Your task to perform on an android device: empty trash in google photos Image 0: 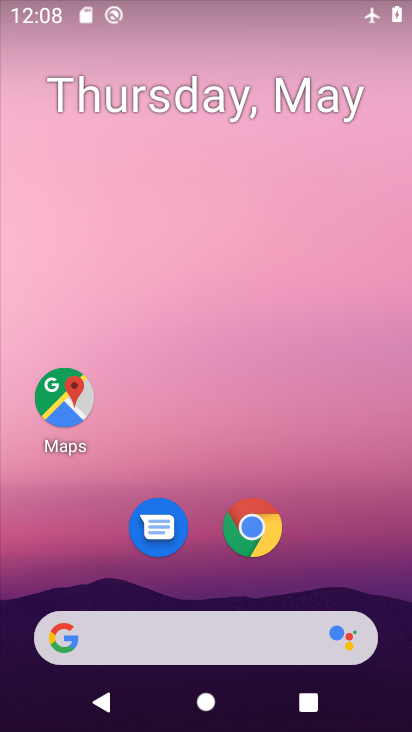
Step 0: drag from (195, 563) to (266, 16)
Your task to perform on an android device: empty trash in google photos Image 1: 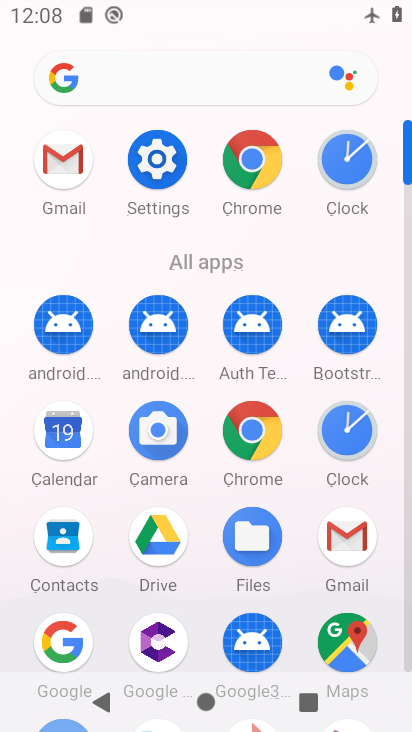
Step 1: drag from (134, 664) to (261, 129)
Your task to perform on an android device: empty trash in google photos Image 2: 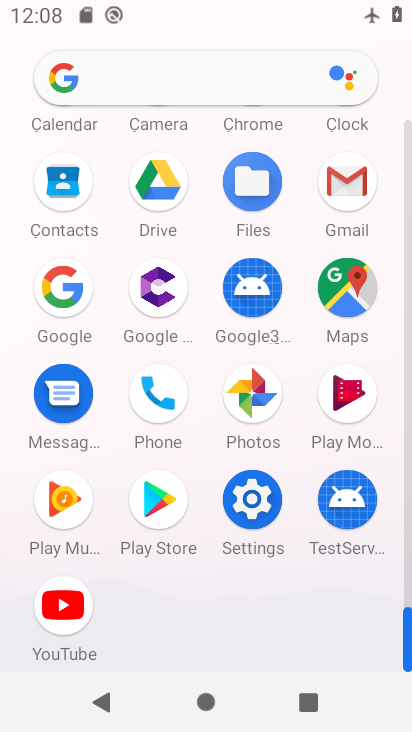
Step 2: click (253, 395)
Your task to perform on an android device: empty trash in google photos Image 3: 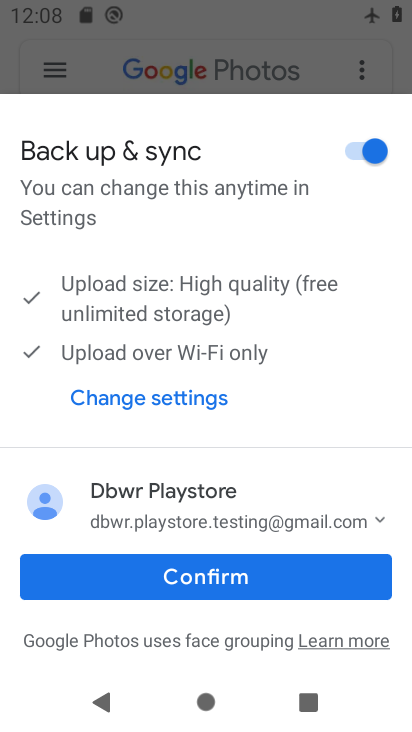
Step 3: click (184, 573)
Your task to perform on an android device: empty trash in google photos Image 4: 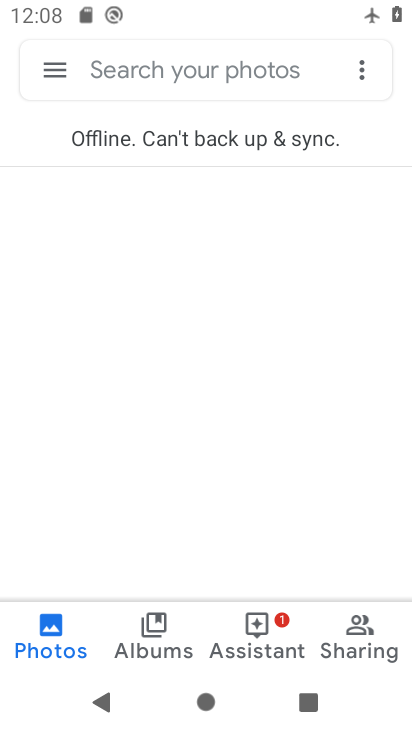
Step 4: click (35, 57)
Your task to perform on an android device: empty trash in google photos Image 5: 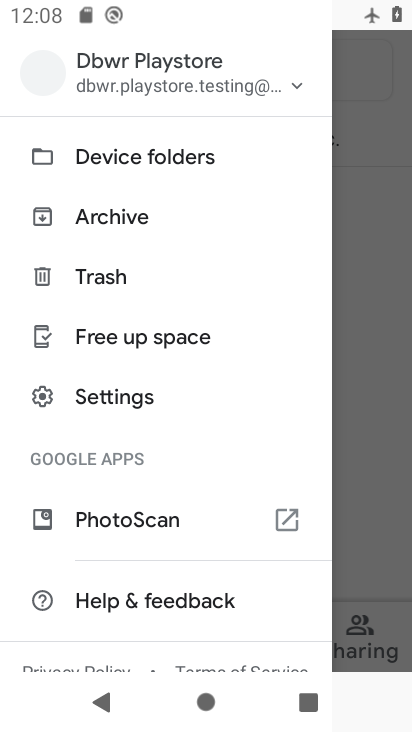
Step 5: click (98, 265)
Your task to perform on an android device: empty trash in google photos Image 6: 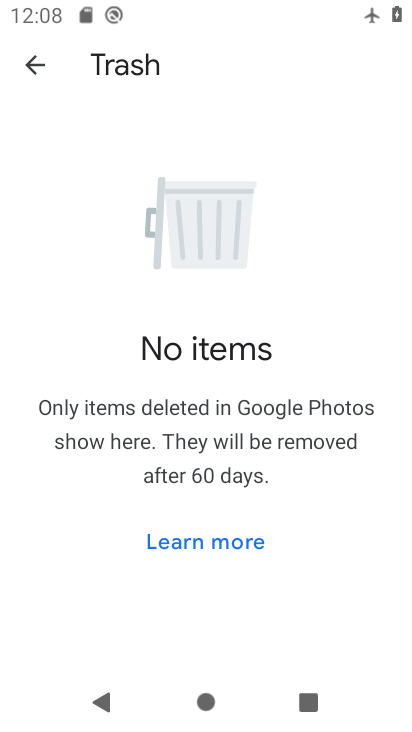
Step 6: task complete